Your task to perform on an android device: Go to Amazon Image 0: 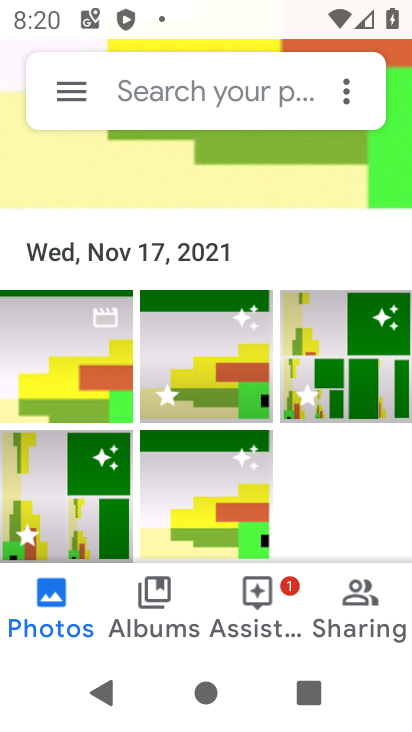
Step 0: press home button
Your task to perform on an android device: Go to Amazon Image 1: 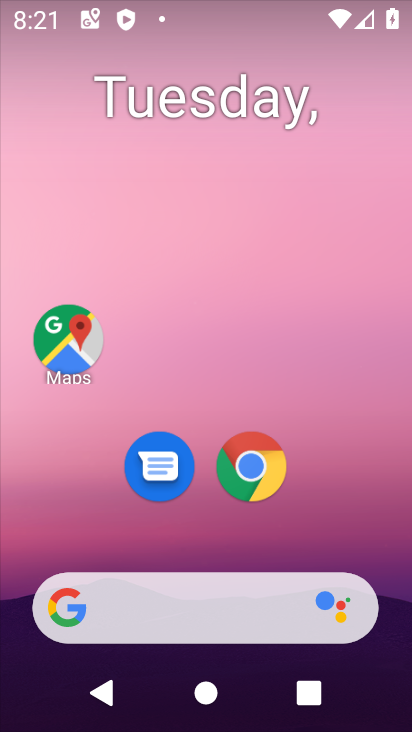
Step 1: click (262, 470)
Your task to perform on an android device: Go to Amazon Image 2: 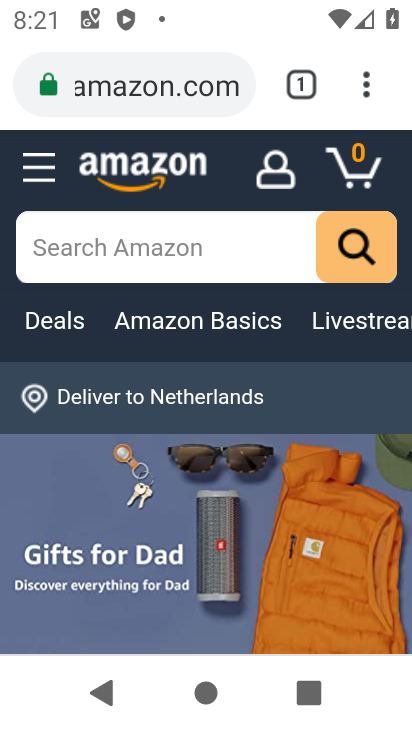
Step 2: click (366, 79)
Your task to perform on an android device: Go to Amazon Image 3: 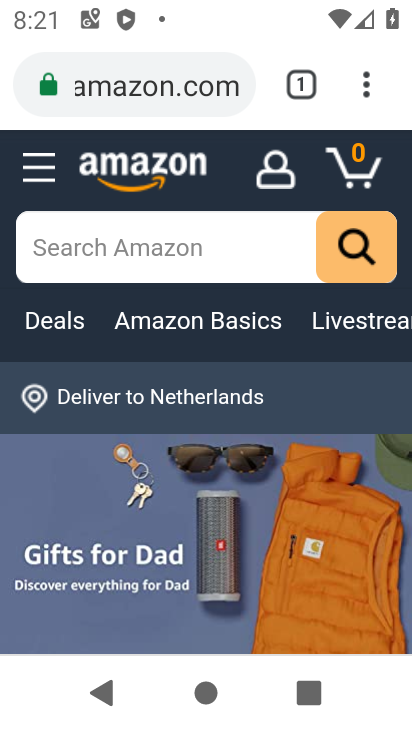
Step 3: task complete